Your task to perform on an android device: Open Wikipedia Image 0: 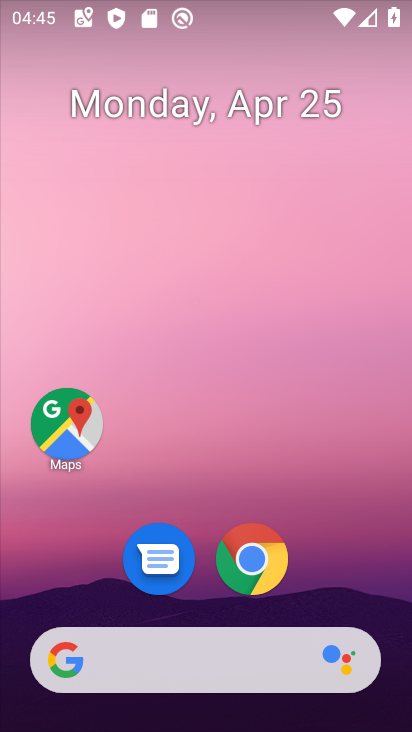
Step 0: click (254, 570)
Your task to perform on an android device: Open Wikipedia Image 1: 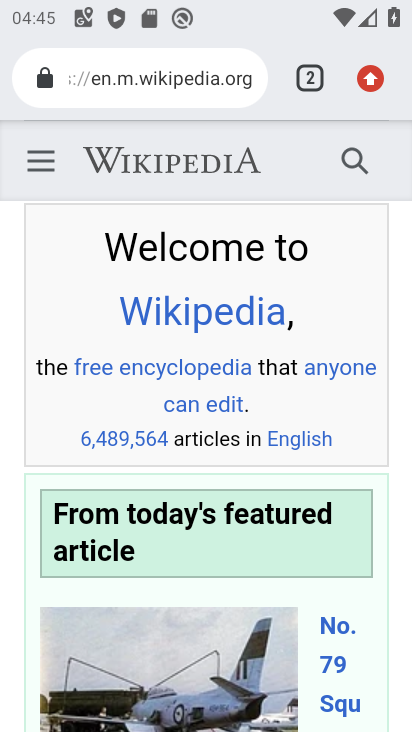
Step 1: task complete